Your task to perform on an android device: Open Wikipedia Image 0: 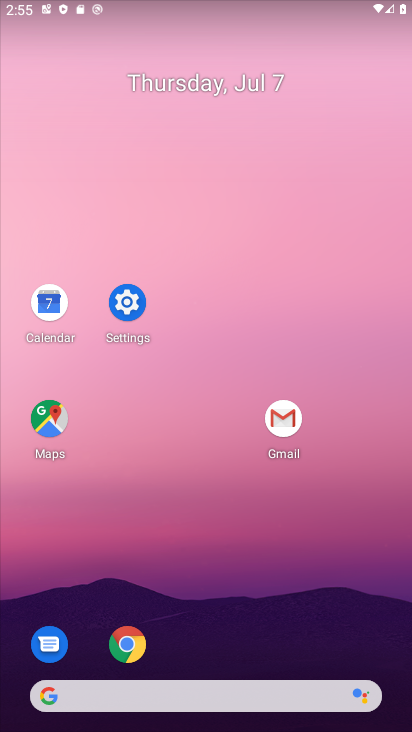
Step 0: click (124, 640)
Your task to perform on an android device: Open Wikipedia Image 1: 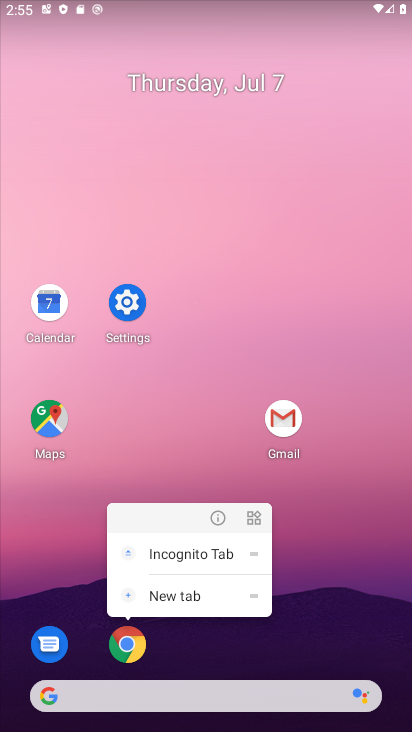
Step 1: click (120, 644)
Your task to perform on an android device: Open Wikipedia Image 2: 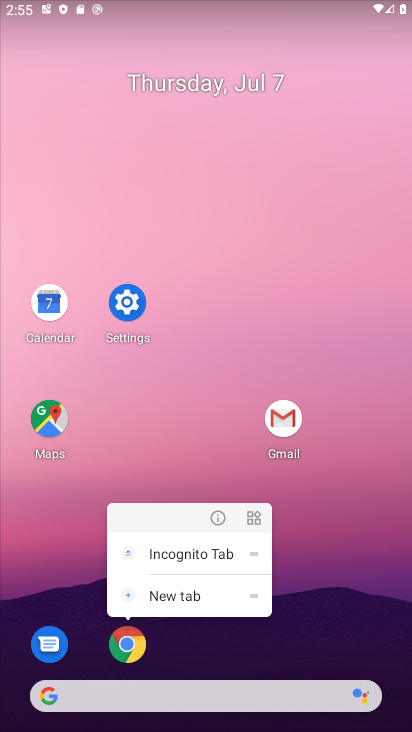
Step 2: click (132, 642)
Your task to perform on an android device: Open Wikipedia Image 3: 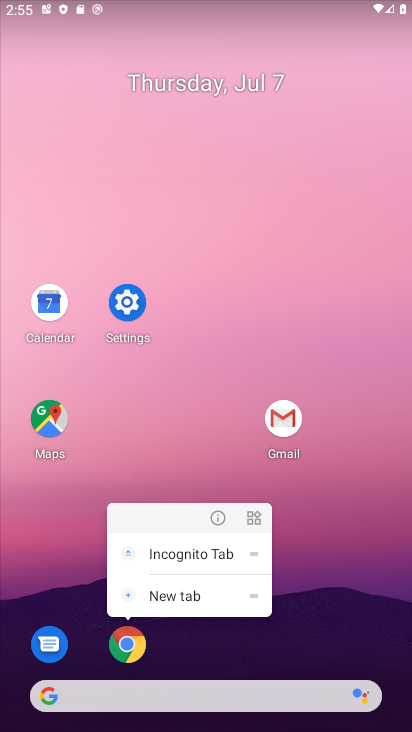
Step 3: click (132, 642)
Your task to perform on an android device: Open Wikipedia Image 4: 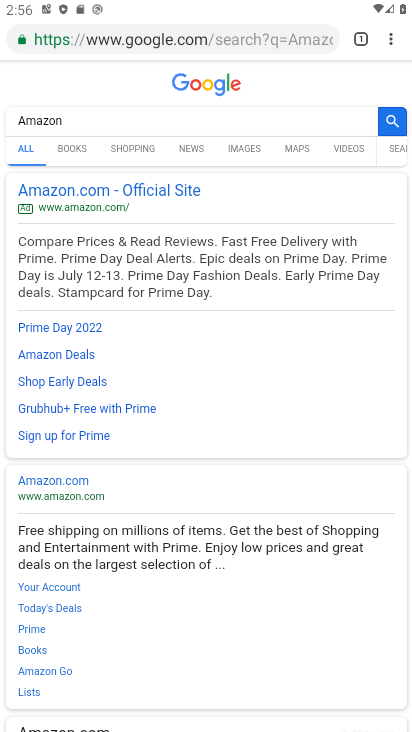
Step 4: click (327, 36)
Your task to perform on an android device: Open Wikipedia Image 5: 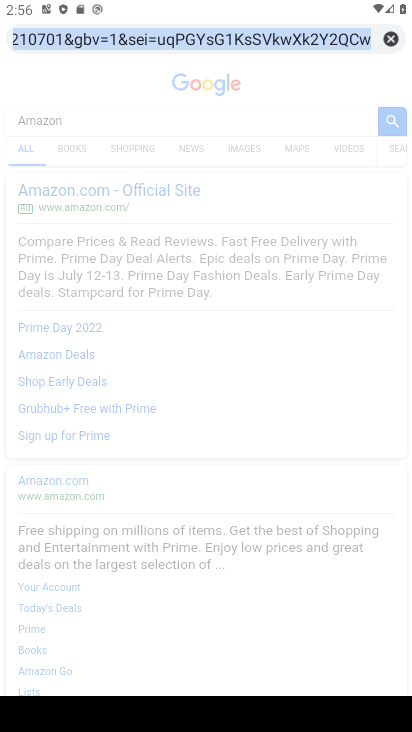
Step 5: click (388, 33)
Your task to perform on an android device: Open Wikipedia Image 6: 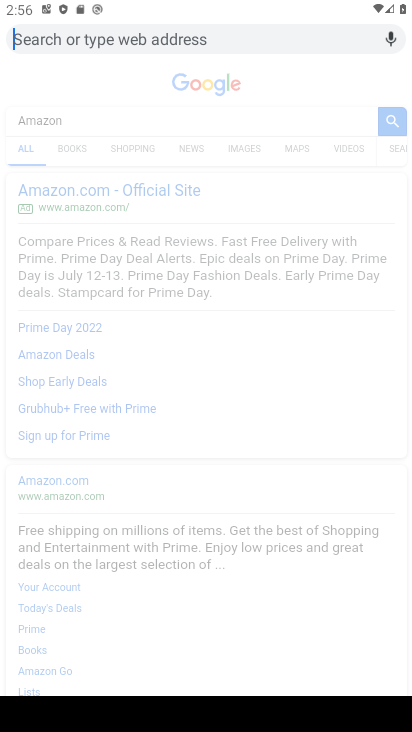
Step 6: type "Wikipedia"
Your task to perform on an android device: Open Wikipedia Image 7: 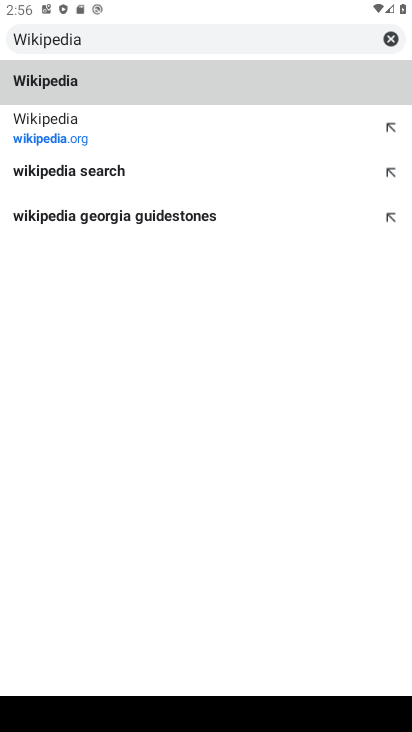
Step 7: click (27, 81)
Your task to perform on an android device: Open Wikipedia Image 8: 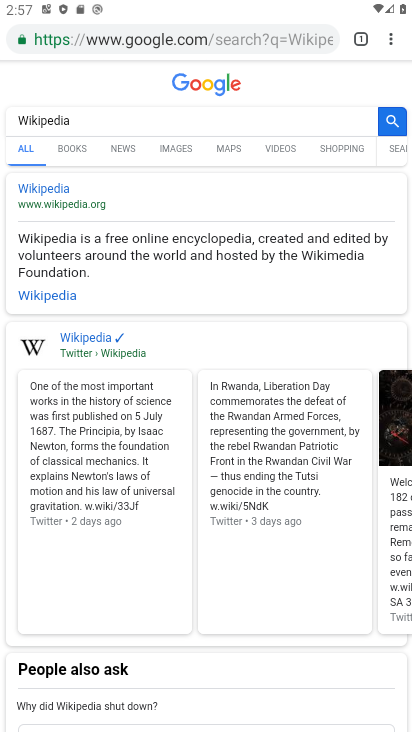
Step 8: task complete